Your task to perform on an android device: Open Chrome and go to settings Image 0: 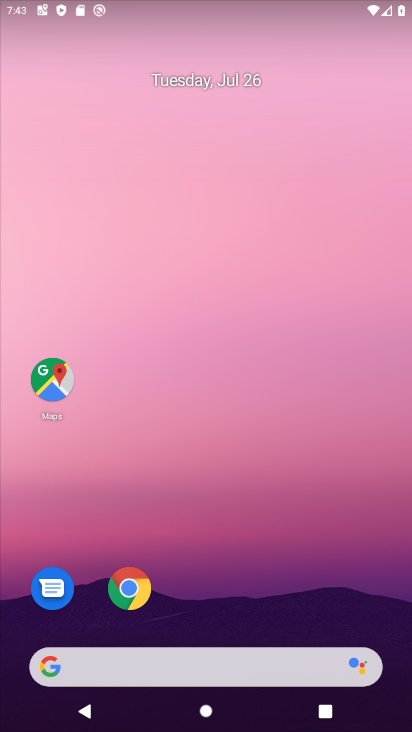
Step 0: click (275, 557)
Your task to perform on an android device: Open Chrome and go to settings Image 1: 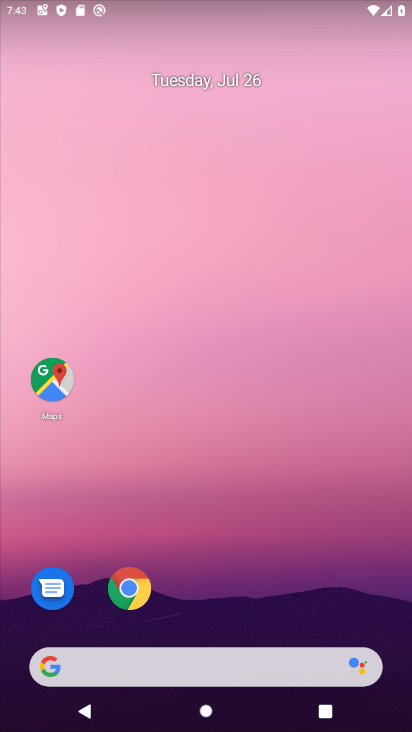
Step 1: click (129, 590)
Your task to perform on an android device: Open Chrome and go to settings Image 2: 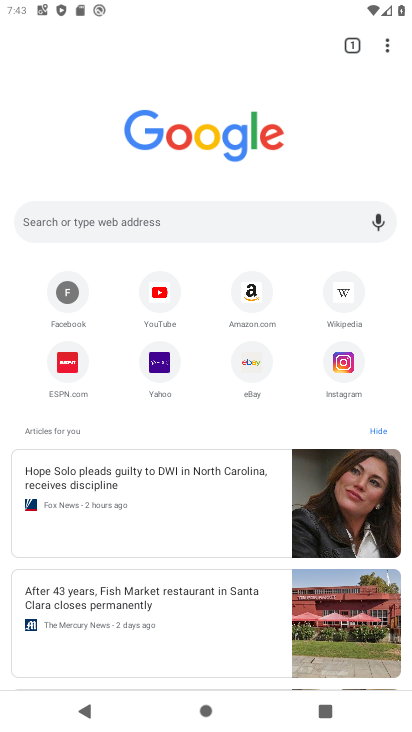
Step 2: click (394, 43)
Your task to perform on an android device: Open Chrome and go to settings Image 3: 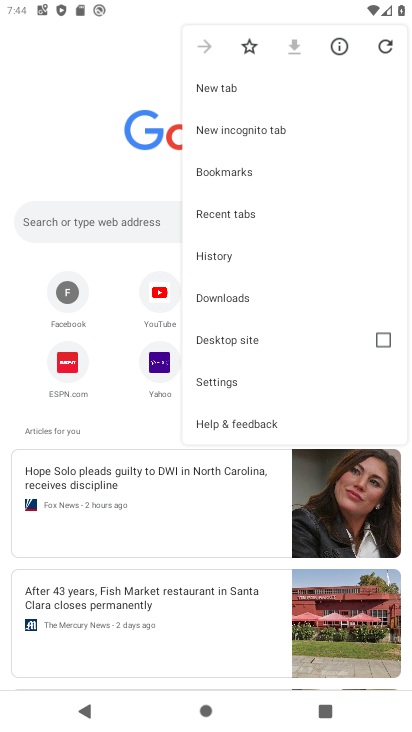
Step 3: click (230, 384)
Your task to perform on an android device: Open Chrome and go to settings Image 4: 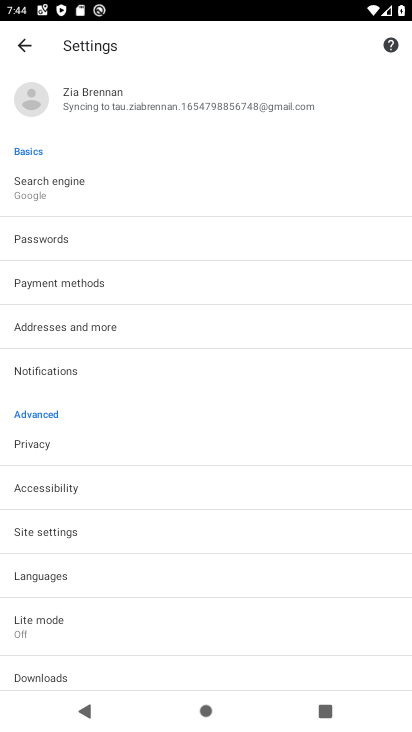
Step 4: task complete